Your task to perform on an android device: Open Wikipedia Image 0: 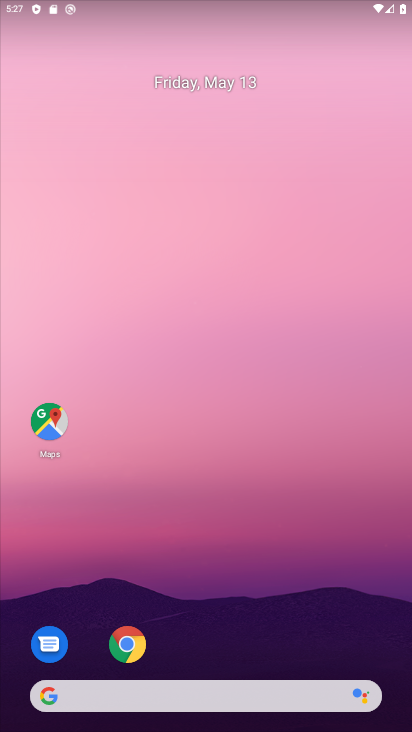
Step 0: click (126, 637)
Your task to perform on an android device: Open Wikipedia Image 1: 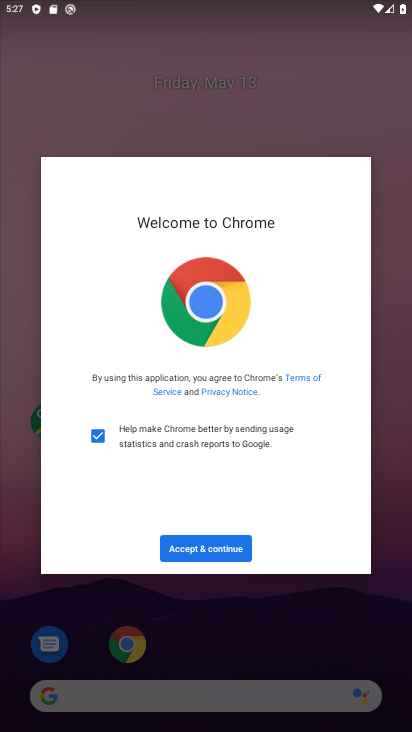
Step 1: click (196, 543)
Your task to perform on an android device: Open Wikipedia Image 2: 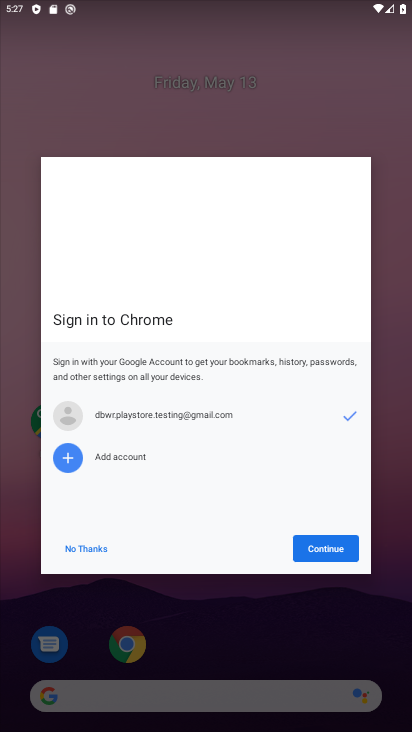
Step 2: click (335, 554)
Your task to perform on an android device: Open Wikipedia Image 3: 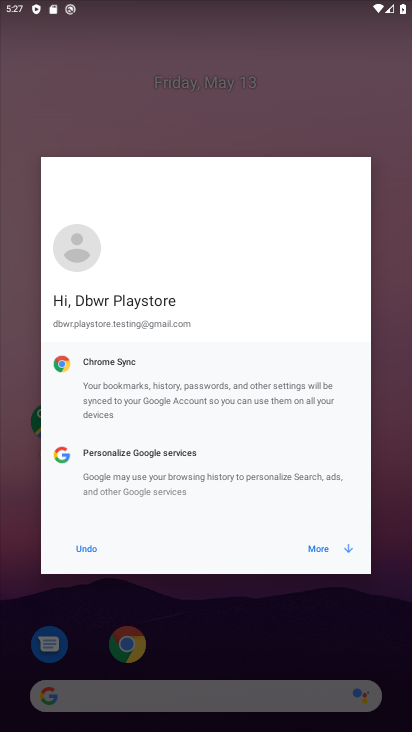
Step 3: click (321, 551)
Your task to perform on an android device: Open Wikipedia Image 4: 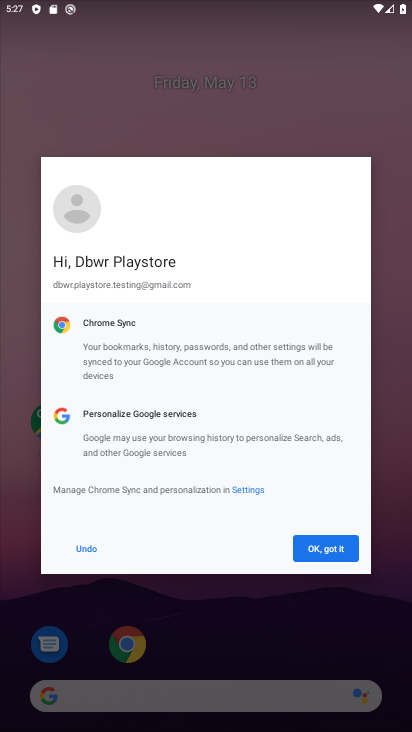
Step 4: click (313, 556)
Your task to perform on an android device: Open Wikipedia Image 5: 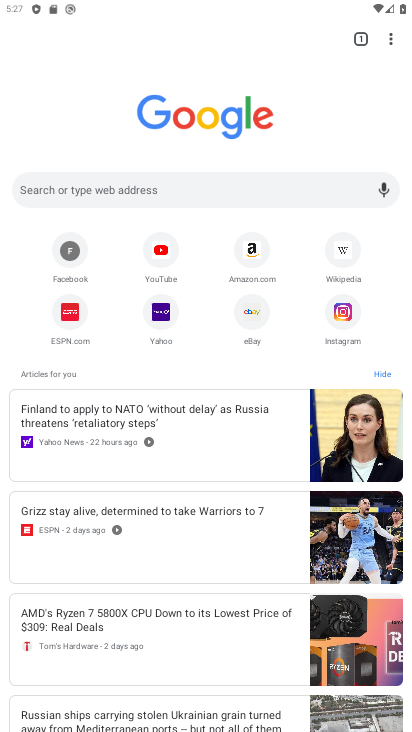
Step 5: click (340, 247)
Your task to perform on an android device: Open Wikipedia Image 6: 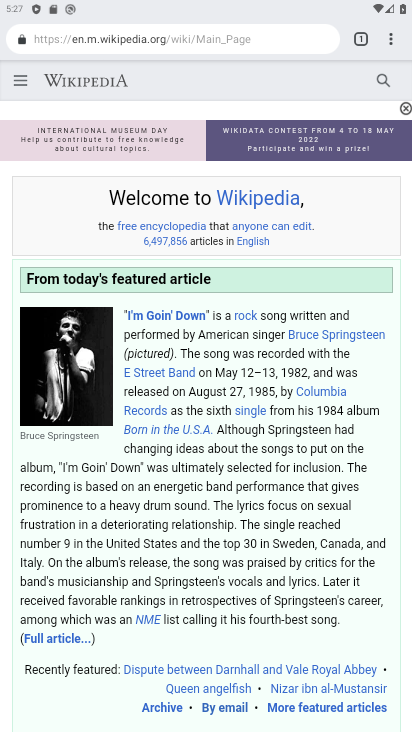
Step 6: task complete